Your task to perform on an android device: turn off priority inbox in the gmail app Image 0: 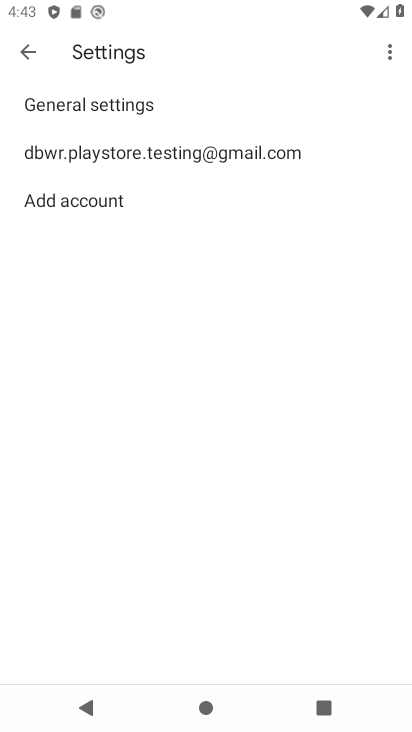
Step 0: press home button
Your task to perform on an android device: turn off priority inbox in the gmail app Image 1: 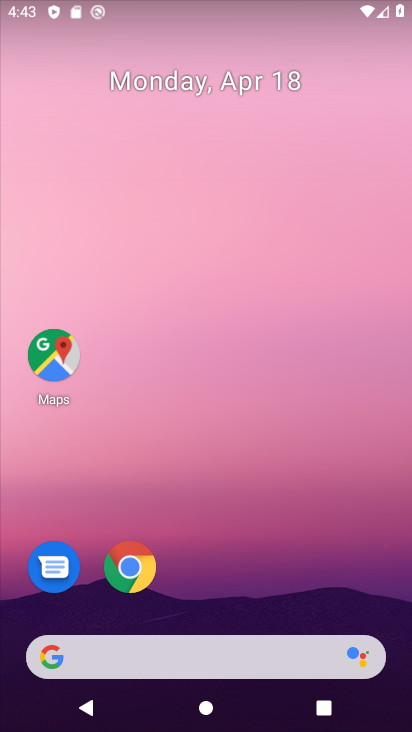
Step 1: drag from (192, 602) to (287, 74)
Your task to perform on an android device: turn off priority inbox in the gmail app Image 2: 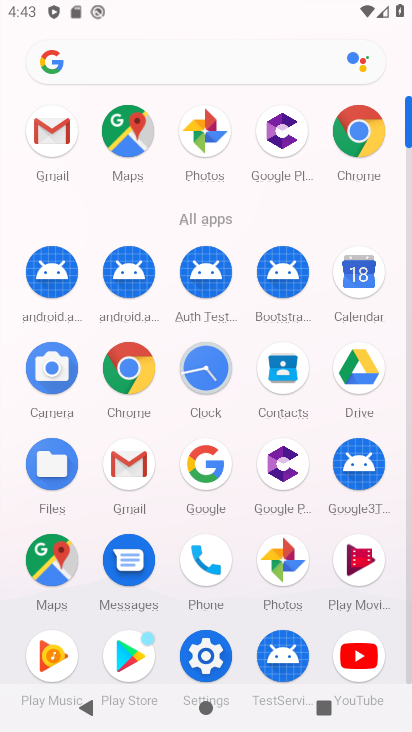
Step 2: click (50, 135)
Your task to perform on an android device: turn off priority inbox in the gmail app Image 3: 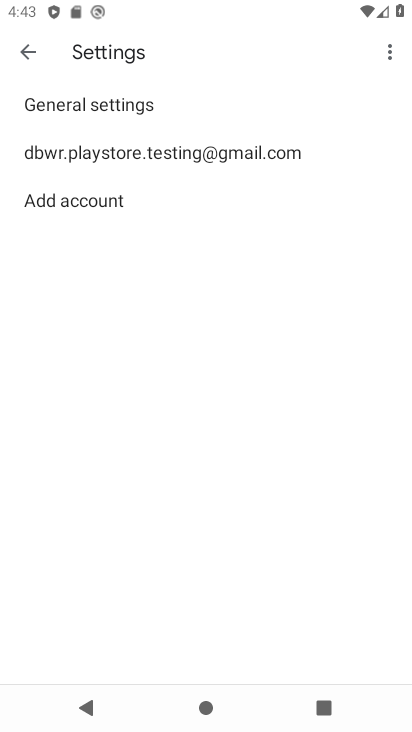
Step 3: click (180, 150)
Your task to perform on an android device: turn off priority inbox in the gmail app Image 4: 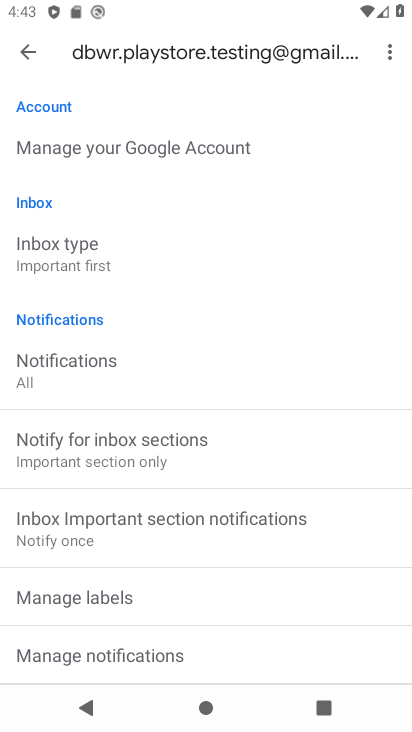
Step 4: click (101, 272)
Your task to perform on an android device: turn off priority inbox in the gmail app Image 5: 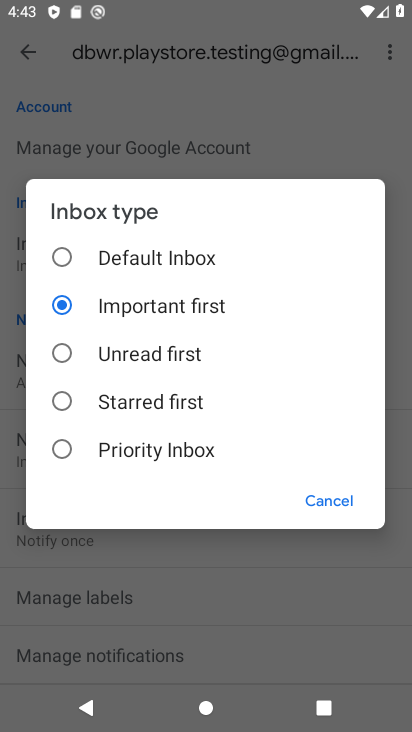
Step 5: task complete